Your task to perform on an android device: turn on wifi Image 0: 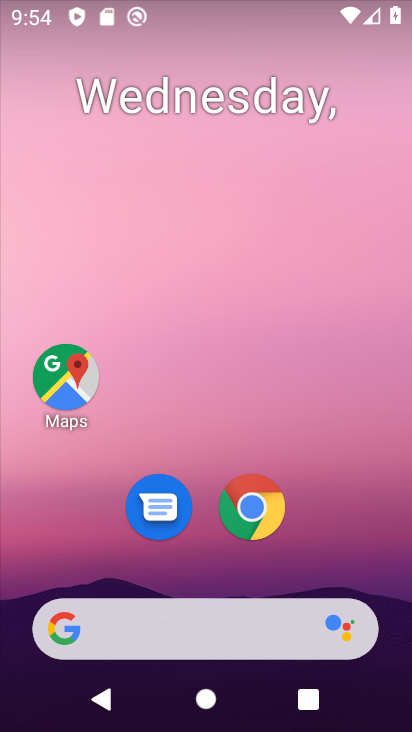
Step 0: drag from (262, 657) to (379, 252)
Your task to perform on an android device: turn on wifi Image 1: 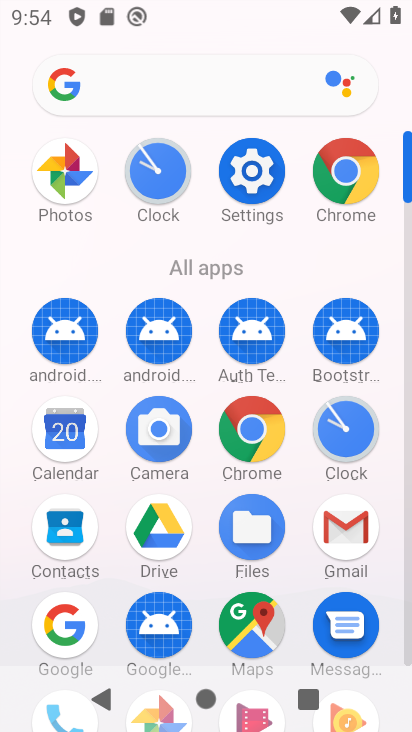
Step 1: click (268, 166)
Your task to perform on an android device: turn on wifi Image 2: 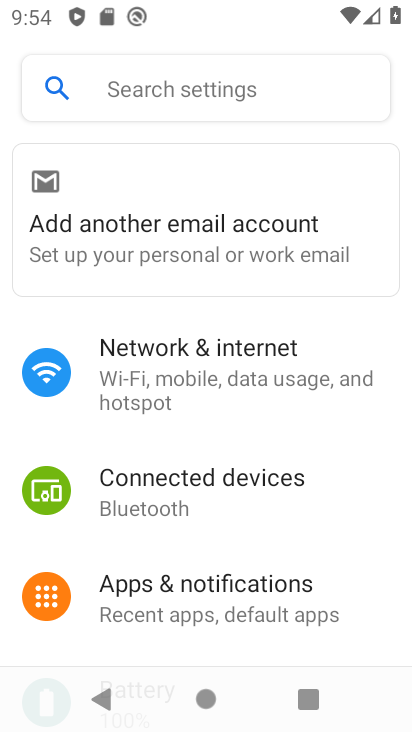
Step 2: click (135, 387)
Your task to perform on an android device: turn on wifi Image 3: 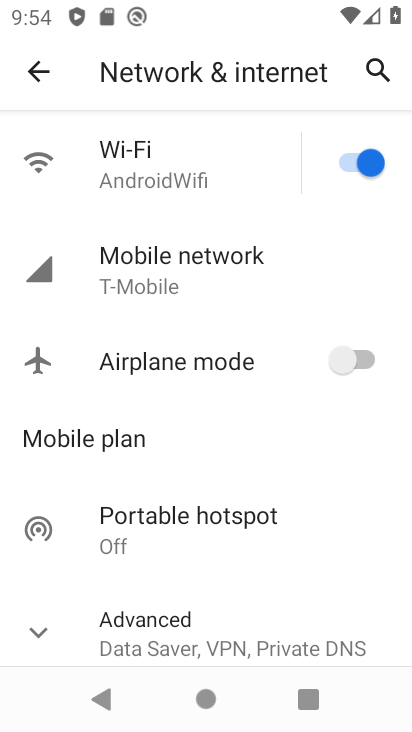
Step 3: click (180, 174)
Your task to perform on an android device: turn on wifi Image 4: 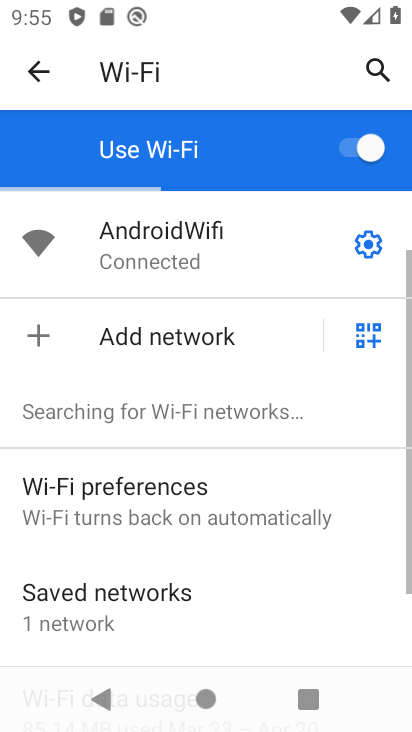
Step 4: click (328, 145)
Your task to perform on an android device: turn on wifi Image 5: 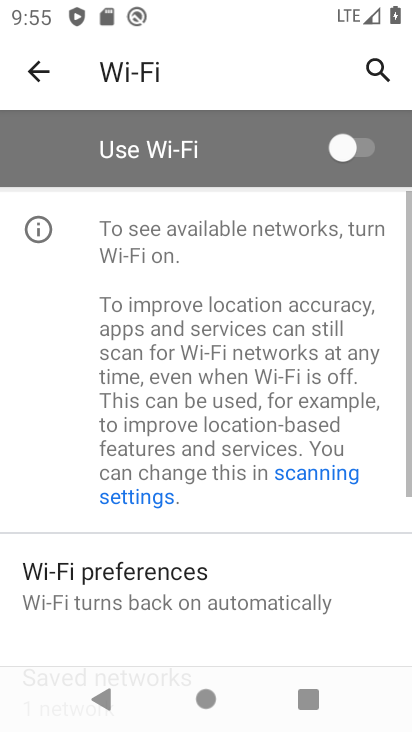
Step 5: click (380, 140)
Your task to perform on an android device: turn on wifi Image 6: 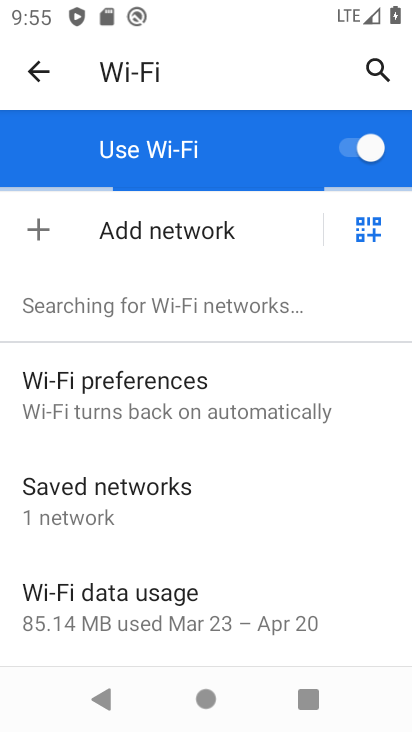
Step 6: task complete